Your task to perform on an android device: Go to location settings Image 0: 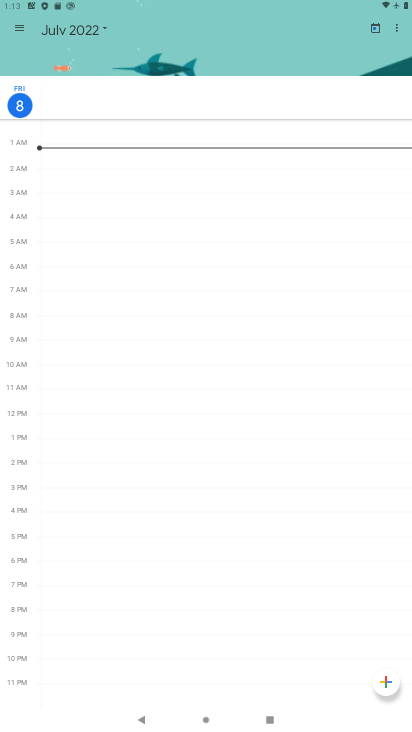
Step 0: press home button
Your task to perform on an android device: Go to location settings Image 1: 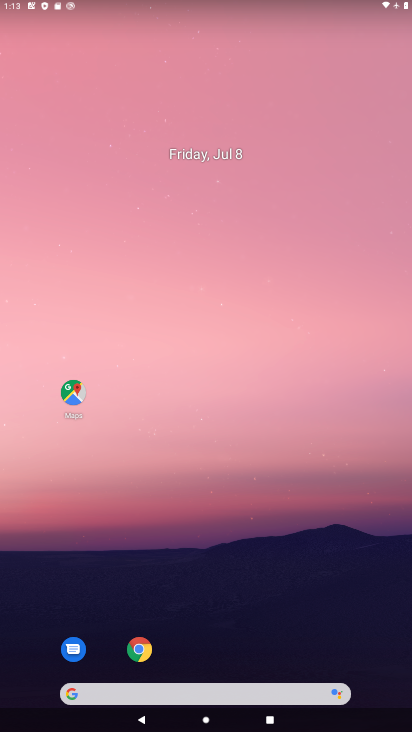
Step 1: drag from (33, 716) to (349, 8)
Your task to perform on an android device: Go to location settings Image 2: 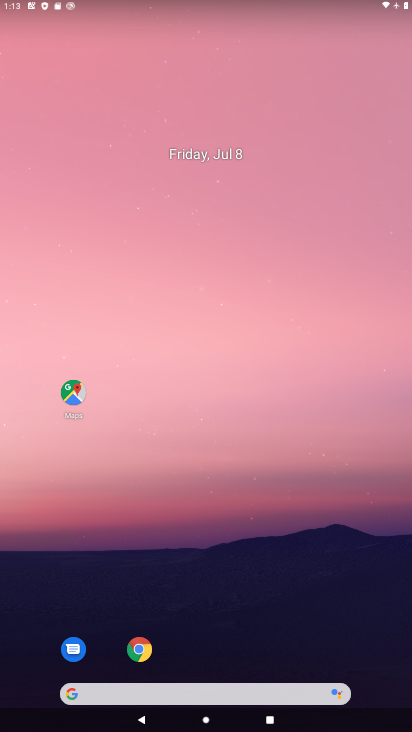
Step 2: drag from (50, 704) to (162, 194)
Your task to perform on an android device: Go to location settings Image 3: 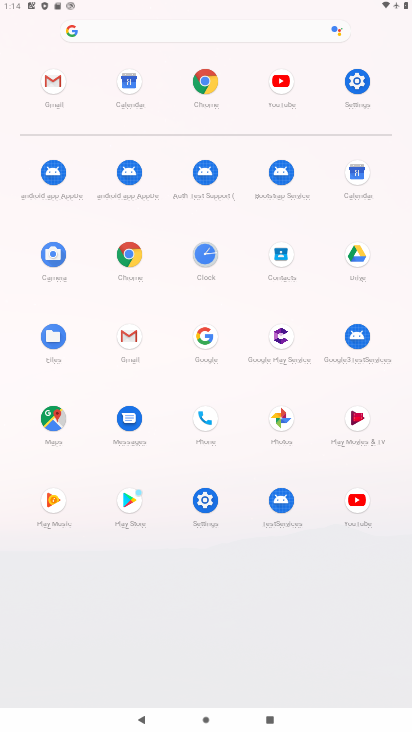
Step 3: click (209, 505)
Your task to perform on an android device: Go to location settings Image 4: 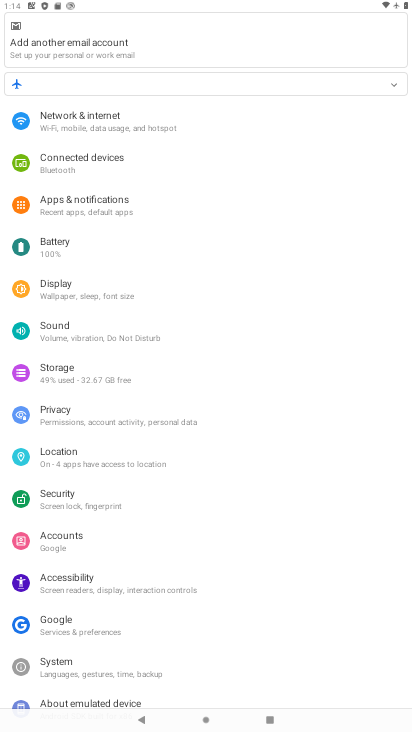
Step 4: click (56, 447)
Your task to perform on an android device: Go to location settings Image 5: 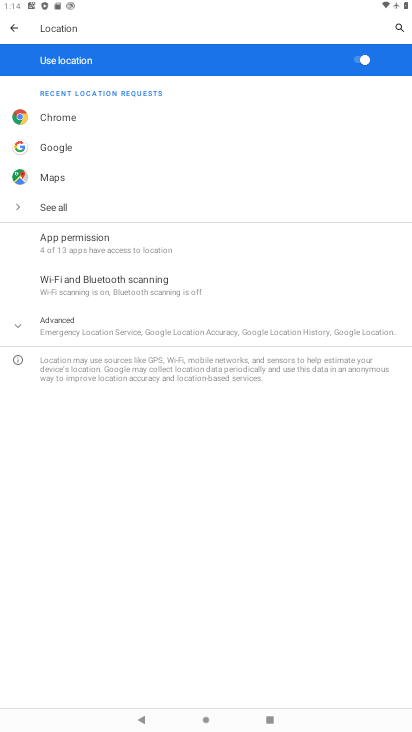
Step 5: task complete